Your task to perform on an android device: turn off notifications settings in the gmail app Image 0: 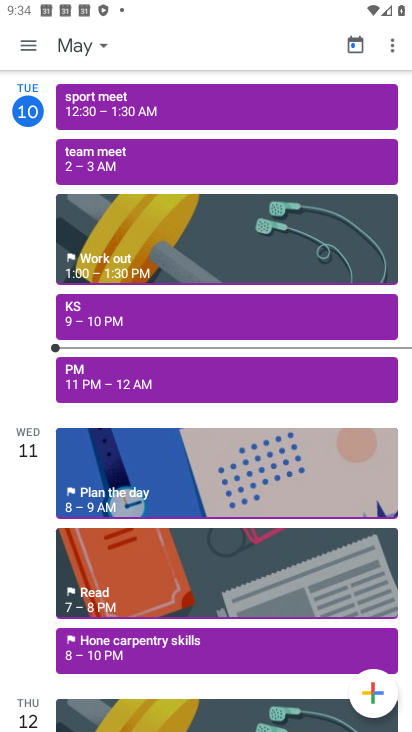
Step 0: press home button
Your task to perform on an android device: turn off notifications settings in the gmail app Image 1: 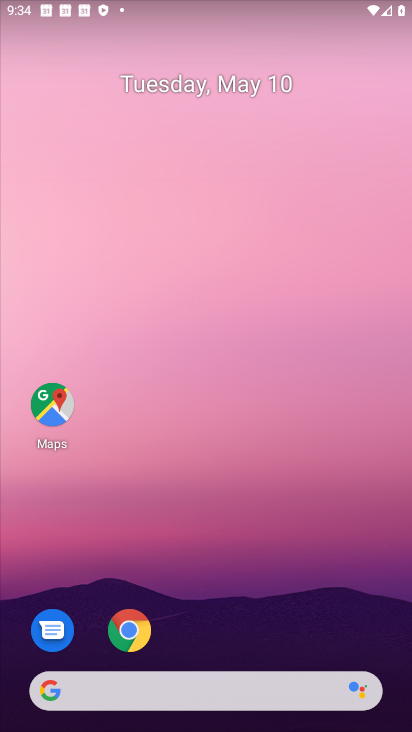
Step 1: drag from (217, 721) to (257, 202)
Your task to perform on an android device: turn off notifications settings in the gmail app Image 2: 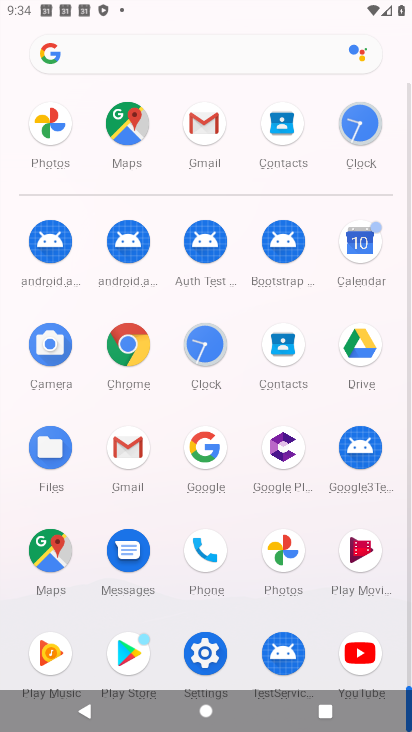
Step 2: click (204, 137)
Your task to perform on an android device: turn off notifications settings in the gmail app Image 3: 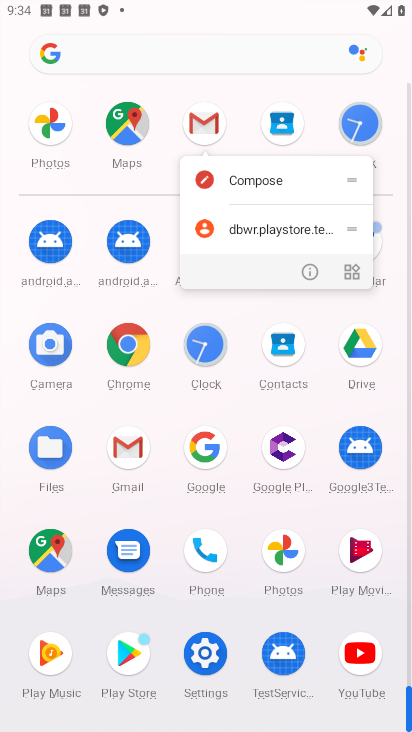
Step 3: click (311, 269)
Your task to perform on an android device: turn off notifications settings in the gmail app Image 4: 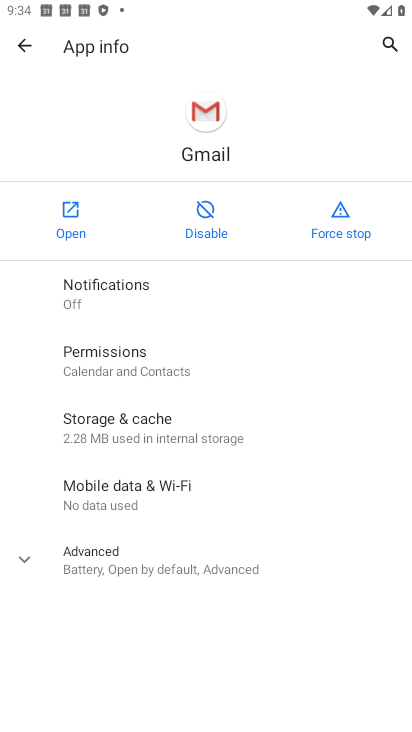
Step 4: click (144, 284)
Your task to perform on an android device: turn off notifications settings in the gmail app Image 5: 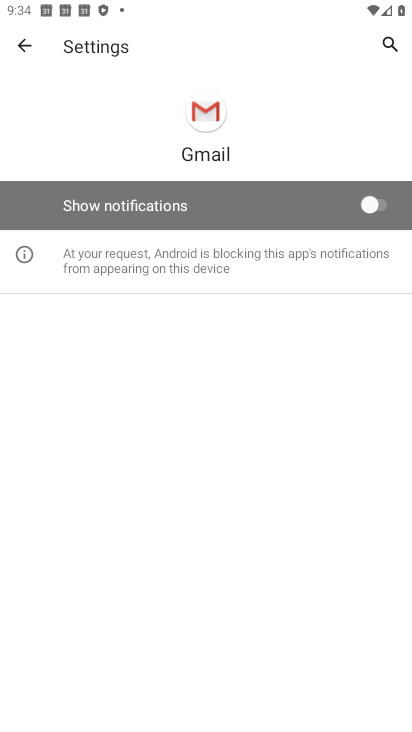
Step 5: task complete